Your task to perform on an android device: delete a single message in the gmail app Image 0: 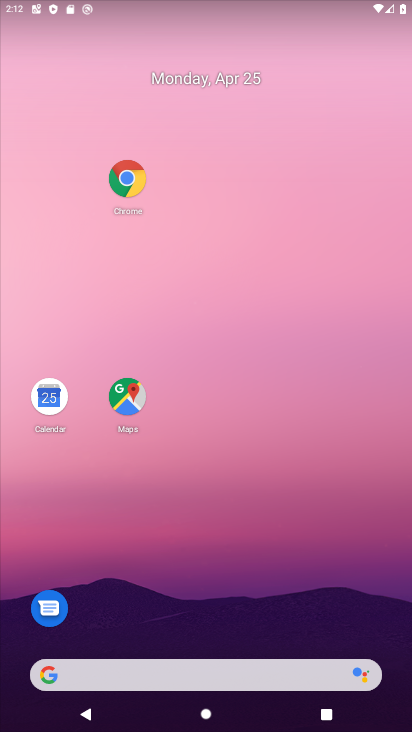
Step 0: drag from (122, 616) to (164, 165)
Your task to perform on an android device: delete a single message in the gmail app Image 1: 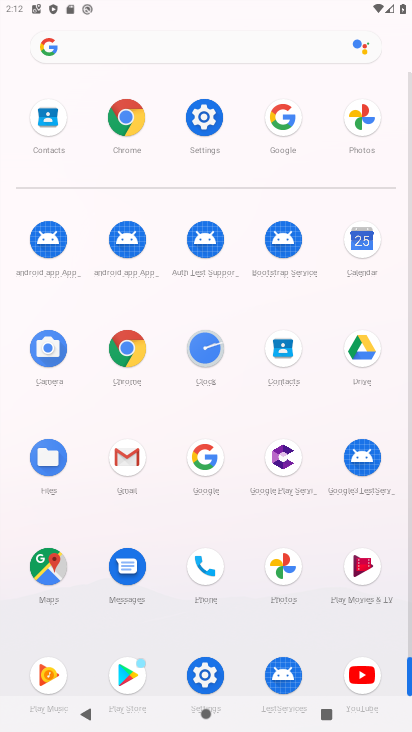
Step 1: click (122, 461)
Your task to perform on an android device: delete a single message in the gmail app Image 2: 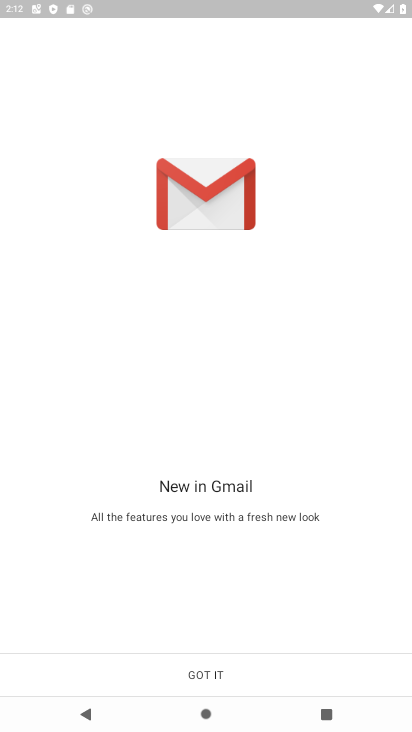
Step 2: click (205, 685)
Your task to perform on an android device: delete a single message in the gmail app Image 3: 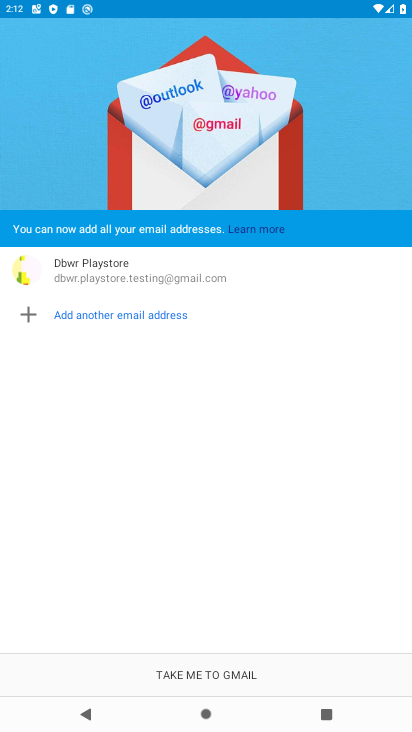
Step 3: click (202, 674)
Your task to perform on an android device: delete a single message in the gmail app Image 4: 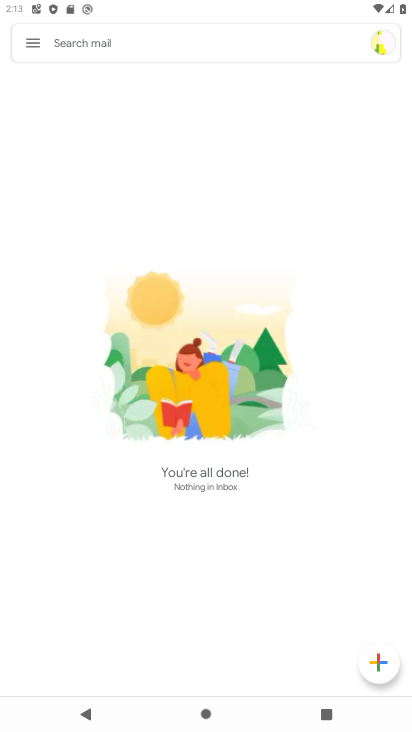
Step 4: click (37, 44)
Your task to perform on an android device: delete a single message in the gmail app Image 5: 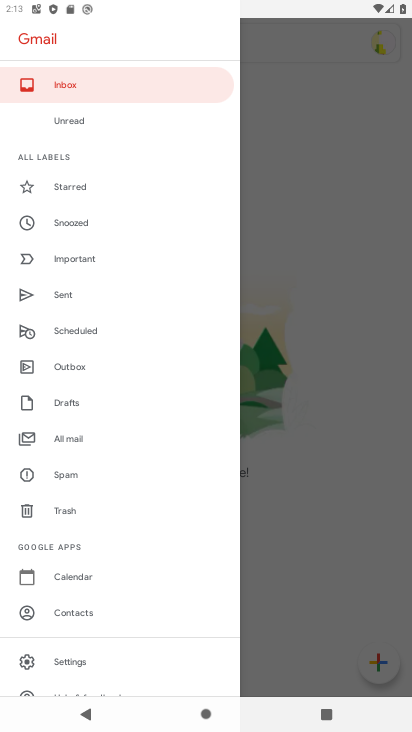
Step 5: click (74, 438)
Your task to perform on an android device: delete a single message in the gmail app Image 6: 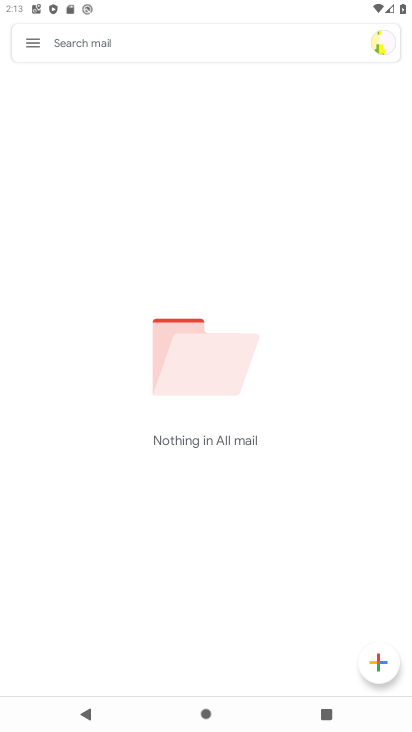
Step 6: task complete